Your task to perform on an android device: allow notifications from all sites in the chrome app Image 0: 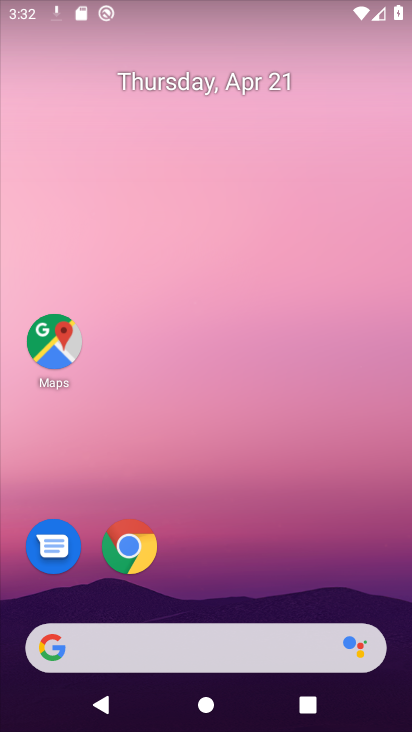
Step 0: click (130, 537)
Your task to perform on an android device: allow notifications from all sites in the chrome app Image 1: 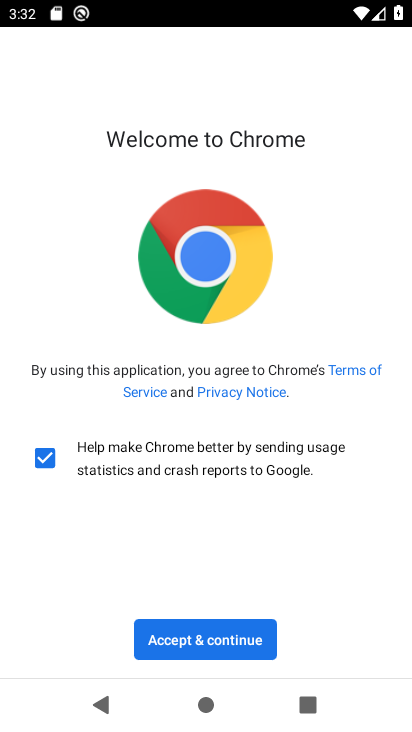
Step 1: click (172, 643)
Your task to perform on an android device: allow notifications from all sites in the chrome app Image 2: 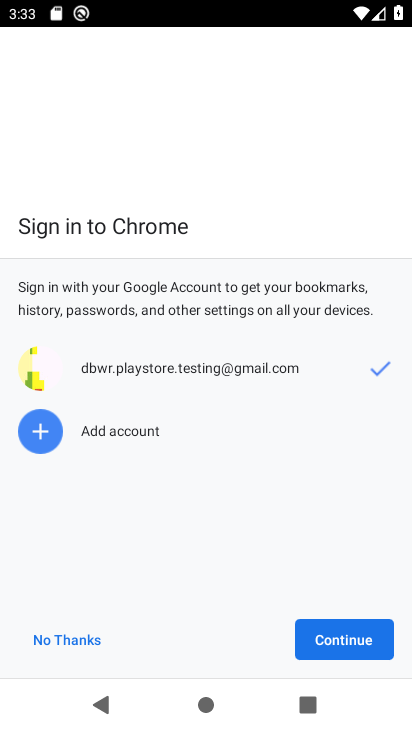
Step 2: click (349, 651)
Your task to perform on an android device: allow notifications from all sites in the chrome app Image 3: 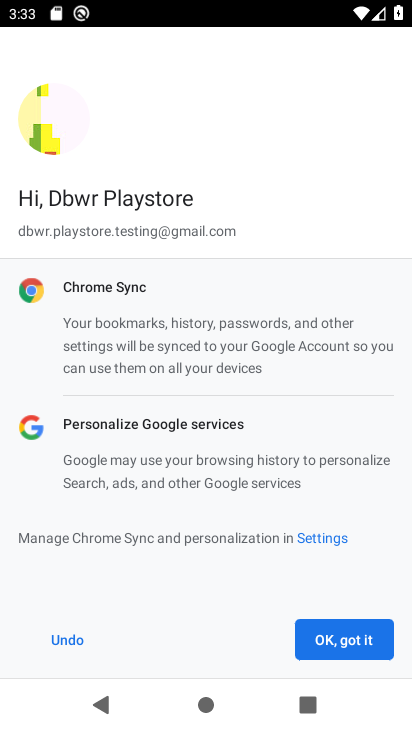
Step 3: click (349, 651)
Your task to perform on an android device: allow notifications from all sites in the chrome app Image 4: 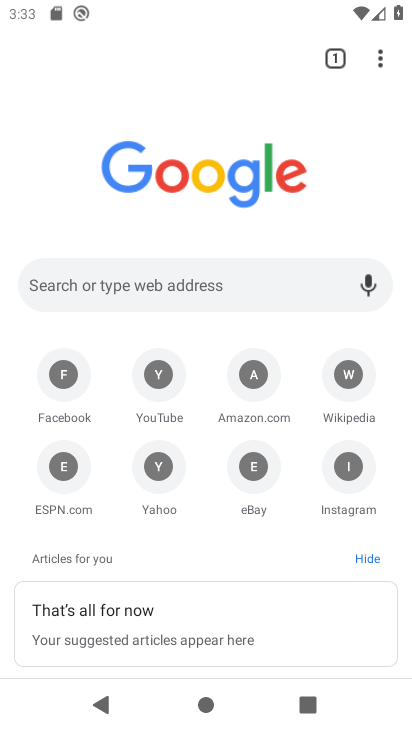
Step 4: click (376, 61)
Your task to perform on an android device: allow notifications from all sites in the chrome app Image 5: 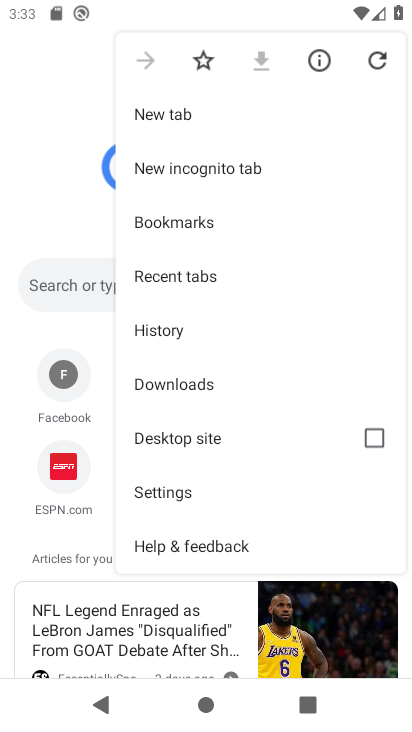
Step 5: click (131, 497)
Your task to perform on an android device: allow notifications from all sites in the chrome app Image 6: 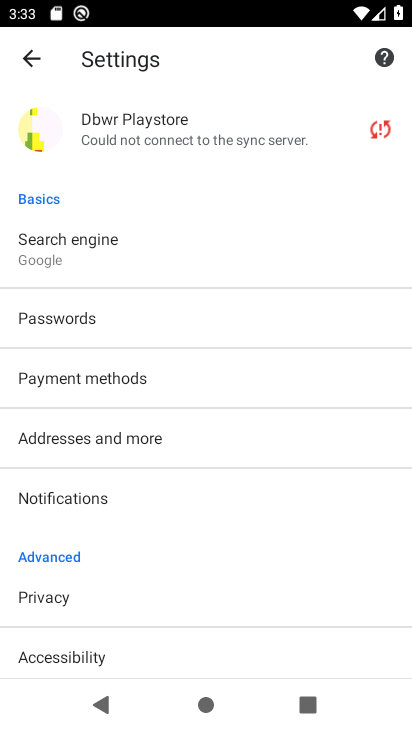
Step 6: click (131, 497)
Your task to perform on an android device: allow notifications from all sites in the chrome app Image 7: 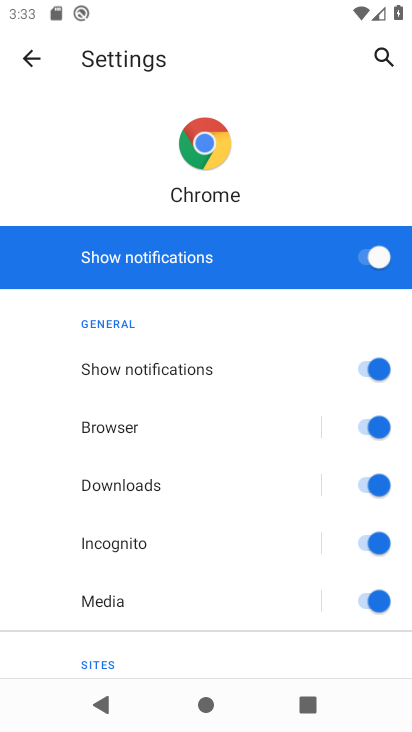
Step 7: task complete